Your task to perform on an android device: add a contact in the contacts app Image 0: 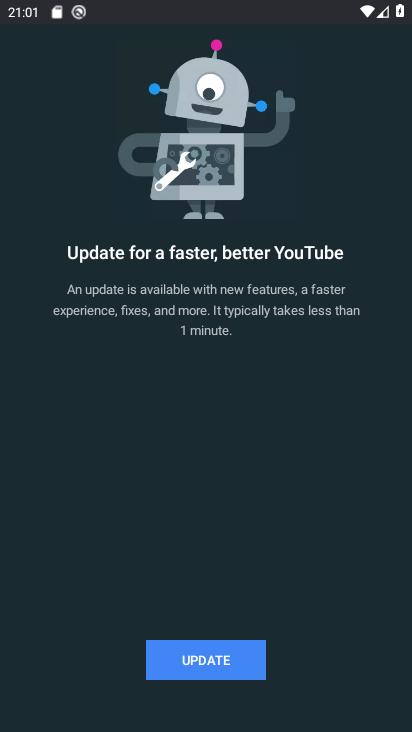
Step 0: press back button
Your task to perform on an android device: add a contact in the contacts app Image 1: 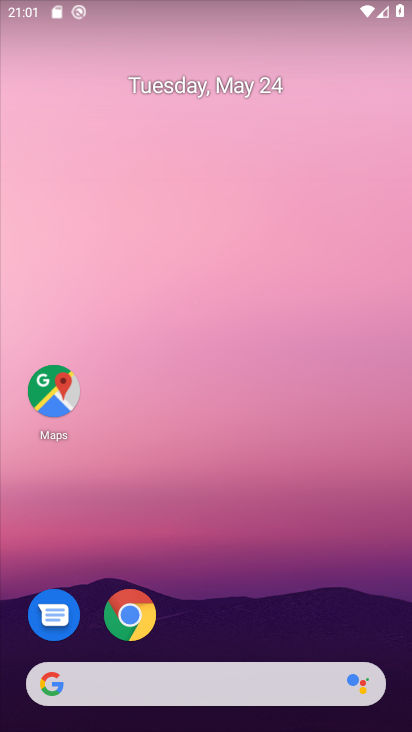
Step 1: drag from (204, 605) to (248, 279)
Your task to perform on an android device: add a contact in the contacts app Image 2: 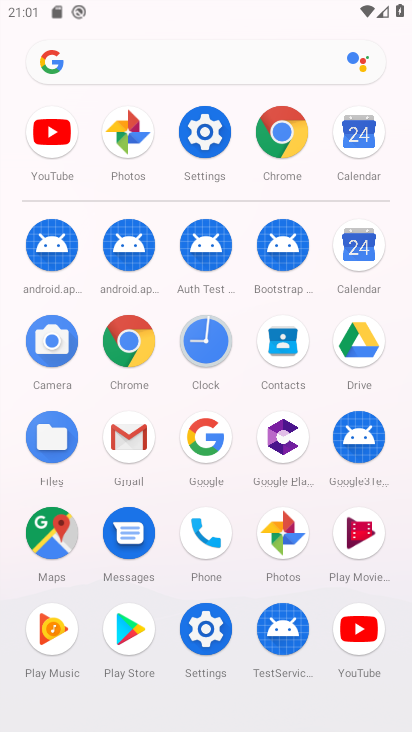
Step 2: click (209, 524)
Your task to perform on an android device: add a contact in the contacts app Image 3: 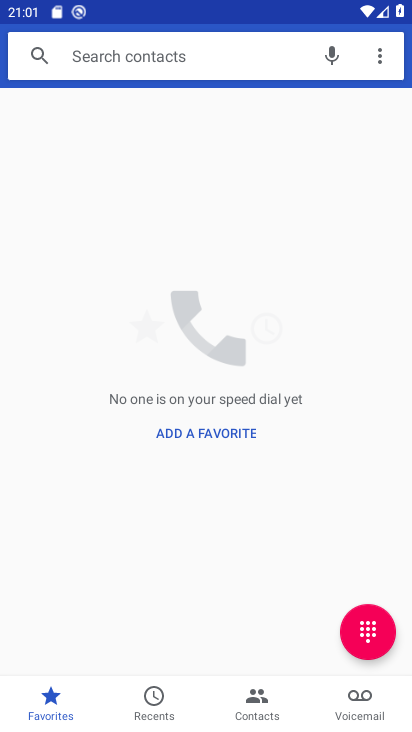
Step 3: click (199, 435)
Your task to perform on an android device: add a contact in the contacts app Image 4: 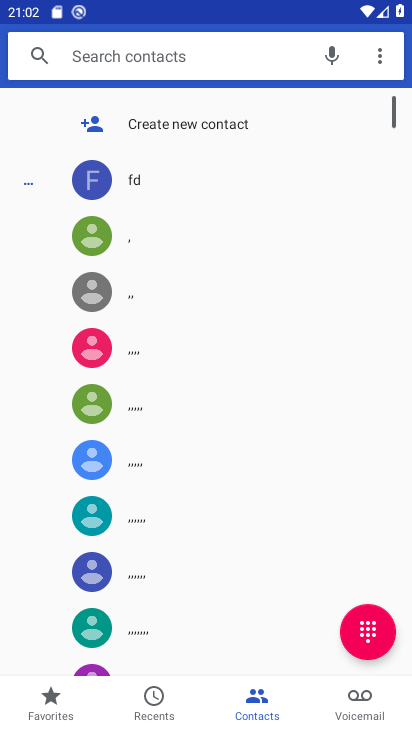
Step 4: click (148, 125)
Your task to perform on an android device: add a contact in the contacts app Image 5: 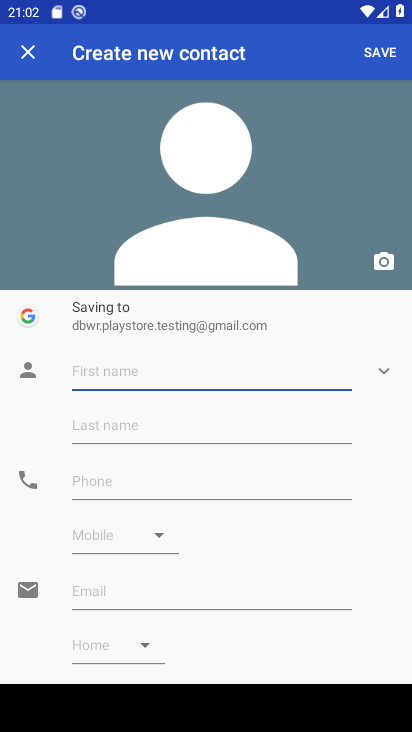
Step 5: click (218, 357)
Your task to perform on an android device: add a contact in the contacts app Image 6: 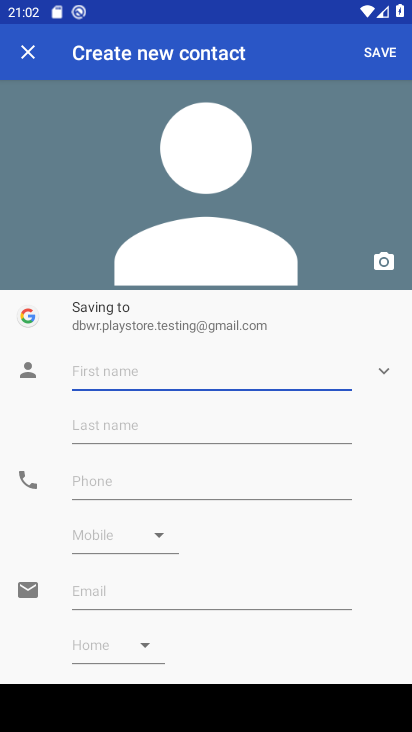
Step 6: type "kjkfffddfdfd"
Your task to perform on an android device: add a contact in the contacts app Image 7: 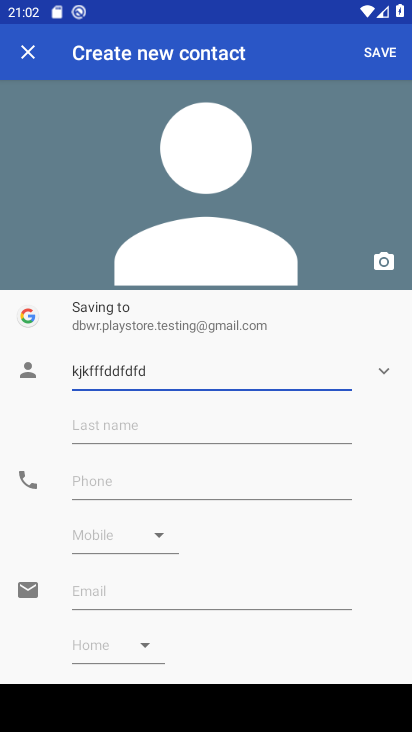
Step 7: click (149, 482)
Your task to perform on an android device: add a contact in the contacts app Image 8: 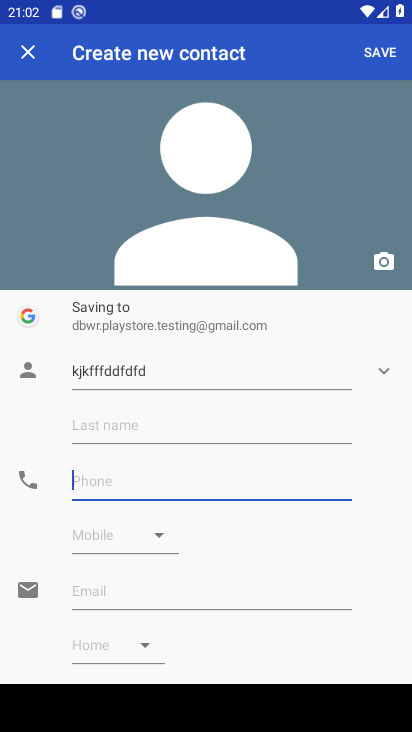
Step 8: type "1234567"
Your task to perform on an android device: add a contact in the contacts app Image 9: 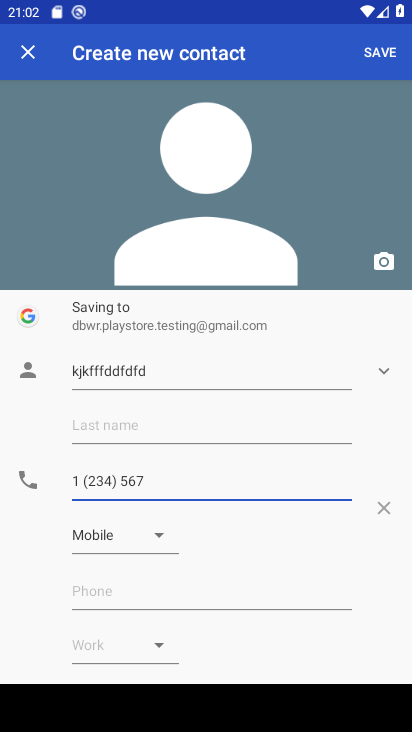
Step 9: click (393, 42)
Your task to perform on an android device: add a contact in the contacts app Image 10: 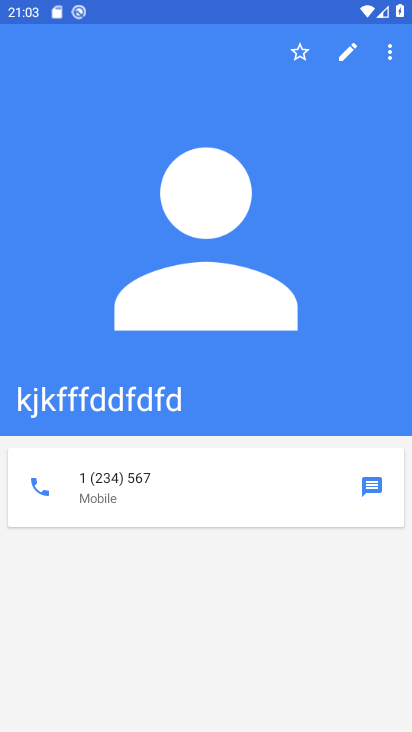
Step 10: task complete